Your task to perform on an android device: refresh tabs in the chrome app Image 0: 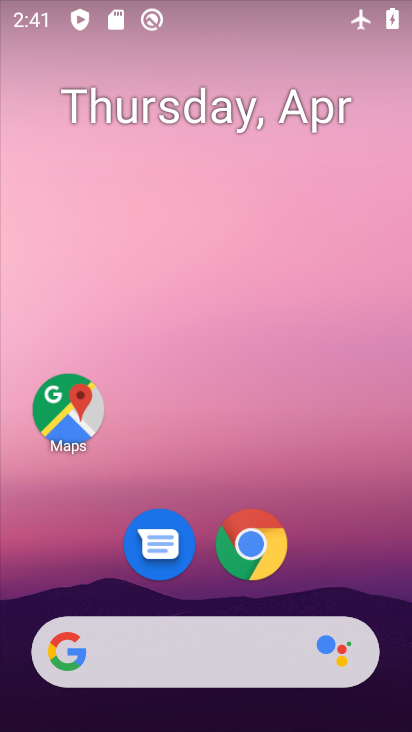
Step 0: click (240, 542)
Your task to perform on an android device: refresh tabs in the chrome app Image 1: 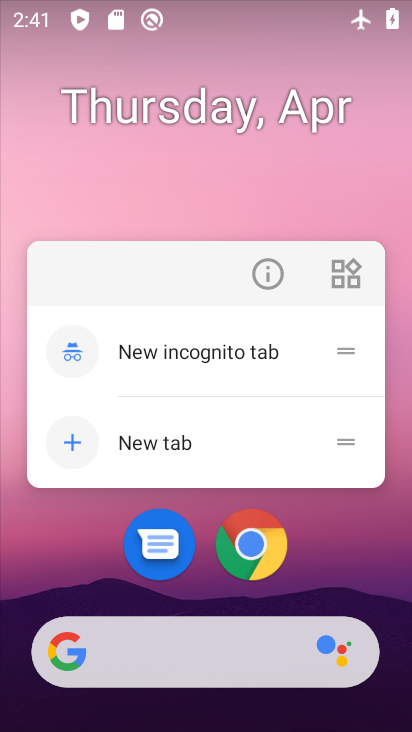
Step 1: click (251, 541)
Your task to perform on an android device: refresh tabs in the chrome app Image 2: 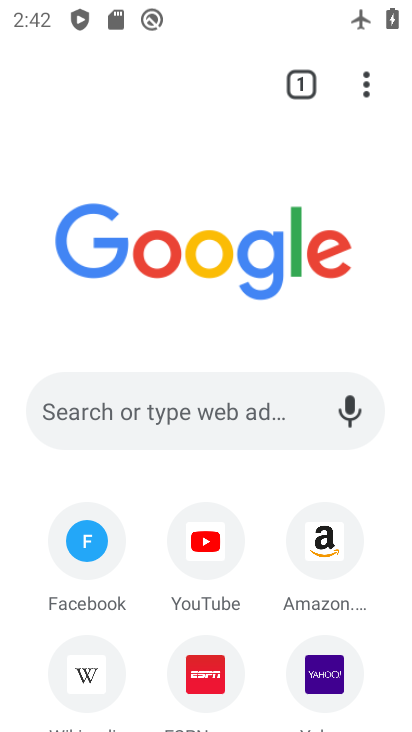
Step 2: click (370, 86)
Your task to perform on an android device: refresh tabs in the chrome app Image 3: 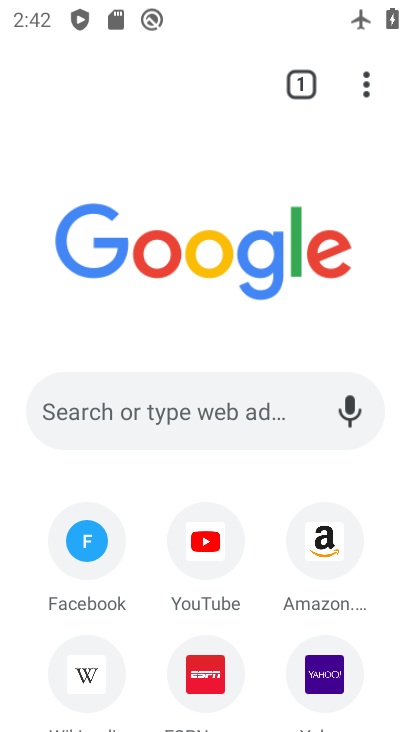
Step 3: click (371, 80)
Your task to perform on an android device: refresh tabs in the chrome app Image 4: 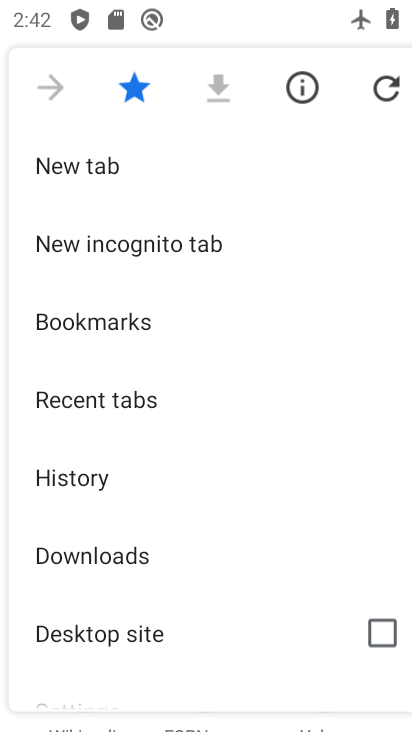
Step 4: click (386, 85)
Your task to perform on an android device: refresh tabs in the chrome app Image 5: 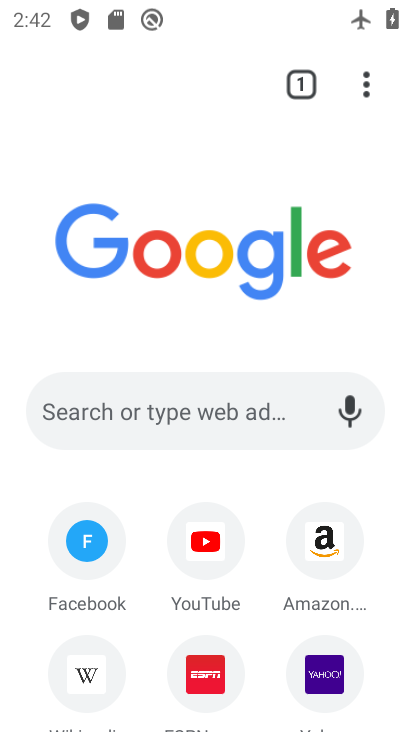
Step 5: task complete